Your task to perform on an android device: turn off location history Image 0: 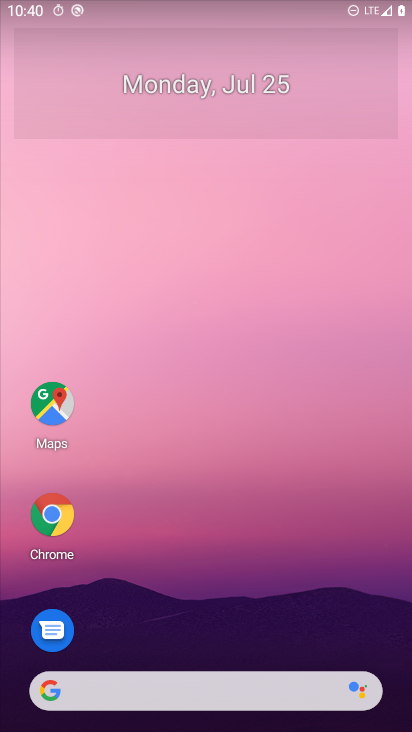
Step 0: drag from (177, 335) to (340, 312)
Your task to perform on an android device: turn off location history Image 1: 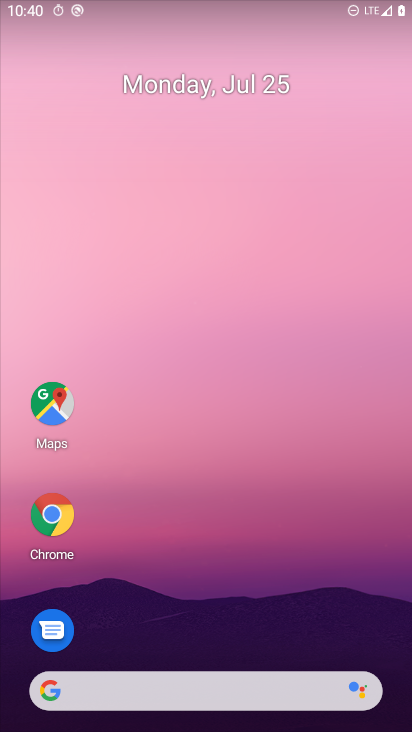
Step 1: drag from (26, 707) to (271, 282)
Your task to perform on an android device: turn off location history Image 2: 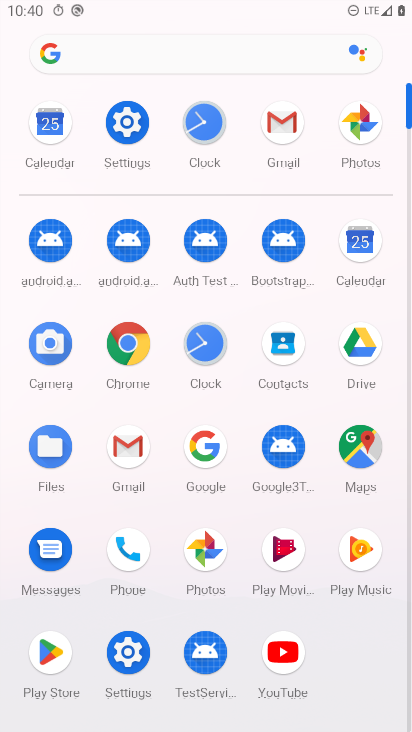
Step 2: click (133, 651)
Your task to perform on an android device: turn off location history Image 3: 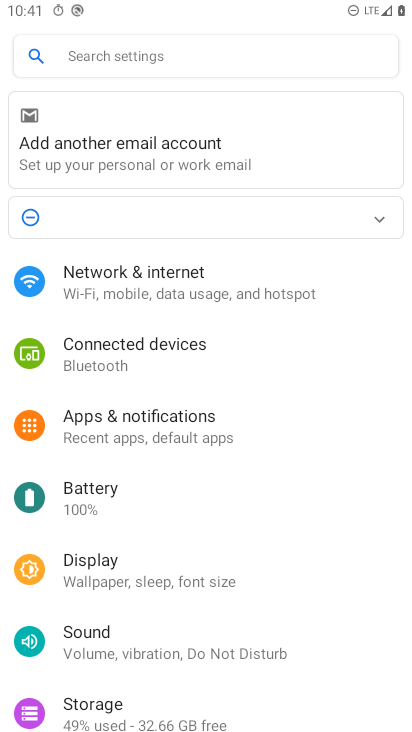
Step 3: drag from (311, 703) to (388, 381)
Your task to perform on an android device: turn off location history Image 4: 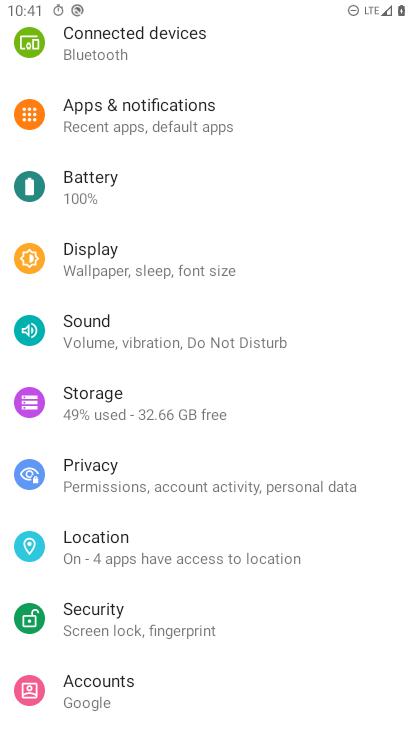
Step 4: click (102, 549)
Your task to perform on an android device: turn off location history Image 5: 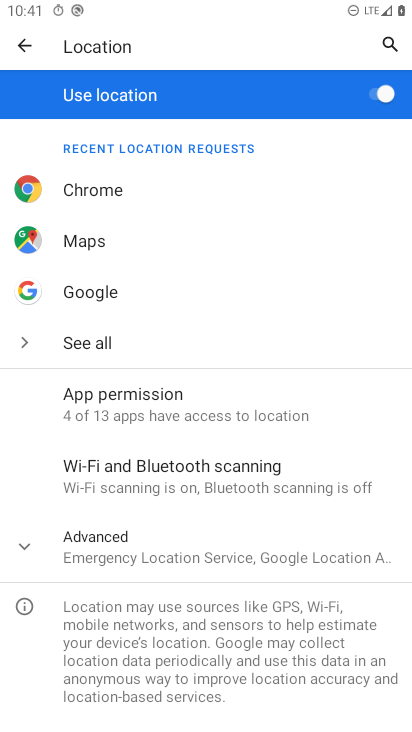
Step 5: click (97, 523)
Your task to perform on an android device: turn off location history Image 6: 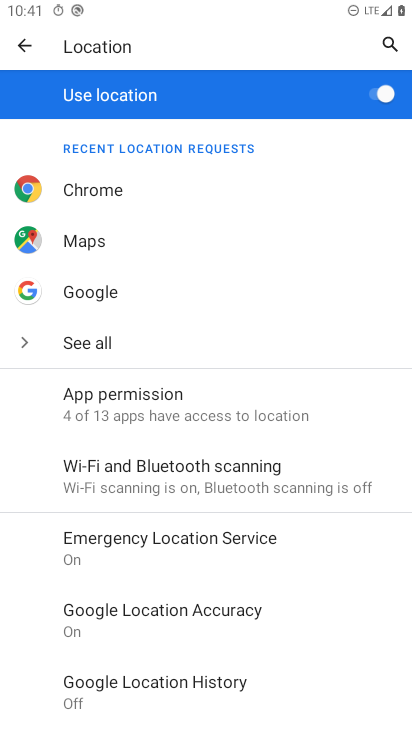
Step 6: click (177, 682)
Your task to perform on an android device: turn off location history Image 7: 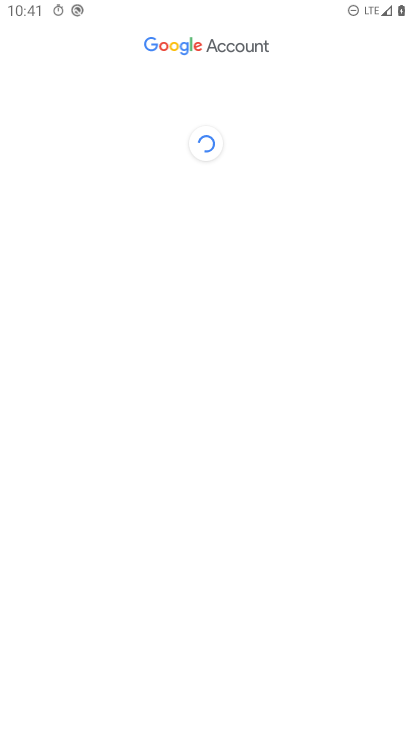
Step 7: task complete